Your task to perform on an android device: remove spam from my inbox in the gmail app Image 0: 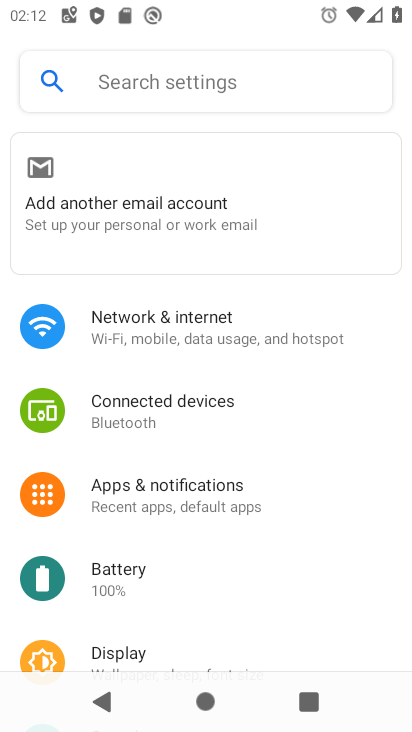
Step 0: press home button
Your task to perform on an android device: remove spam from my inbox in the gmail app Image 1: 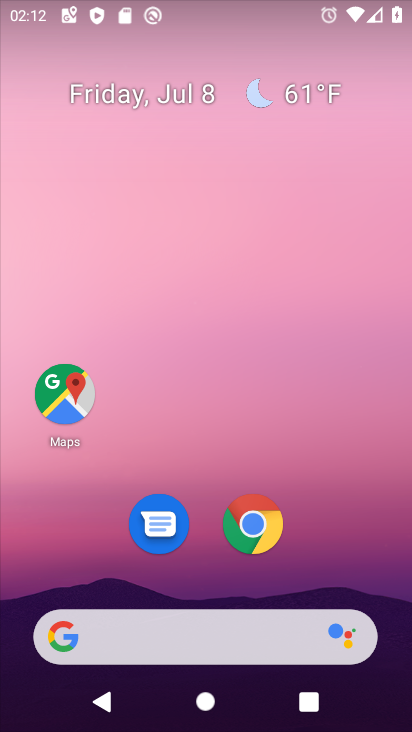
Step 1: drag from (304, 560) to (292, 36)
Your task to perform on an android device: remove spam from my inbox in the gmail app Image 2: 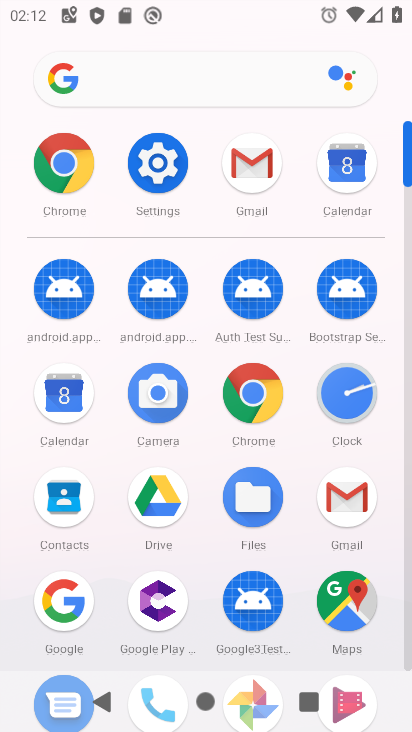
Step 2: click (254, 167)
Your task to perform on an android device: remove spam from my inbox in the gmail app Image 3: 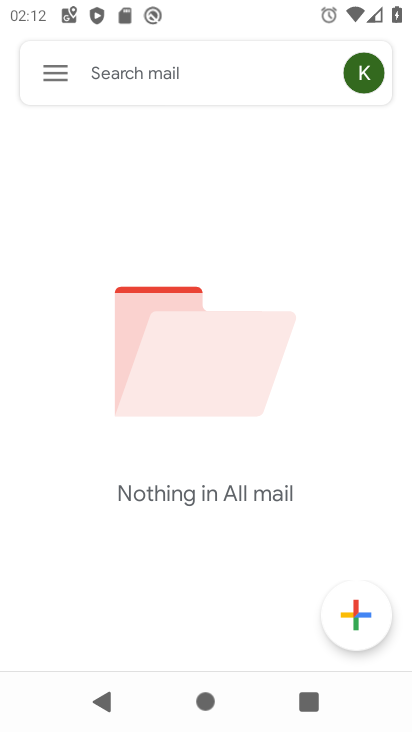
Step 3: click (53, 70)
Your task to perform on an android device: remove spam from my inbox in the gmail app Image 4: 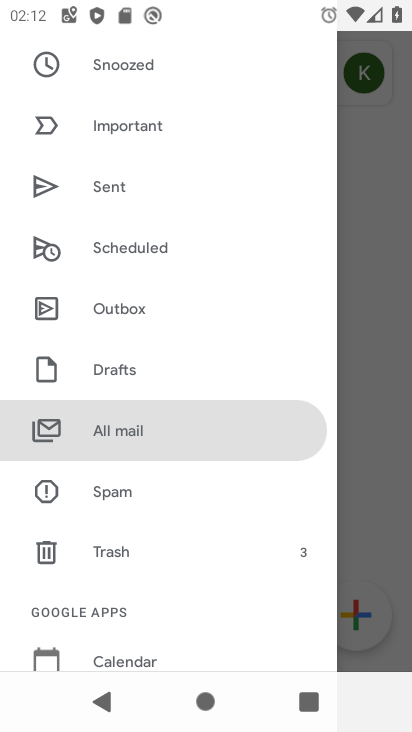
Step 4: click (115, 482)
Your task to perform on an android device: remove spam from my inbox in the gmail app Image 5: 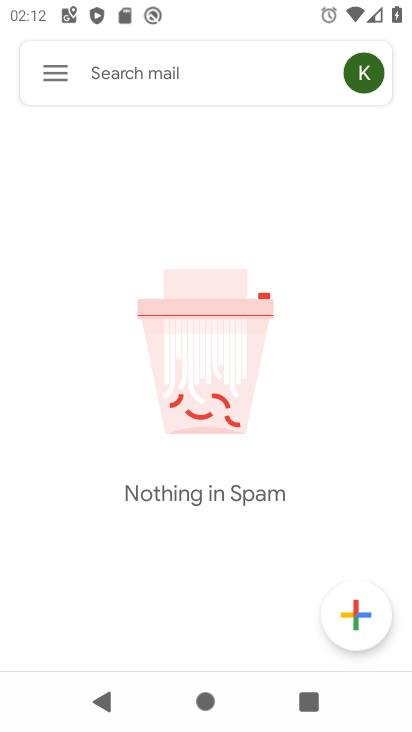
Step 5: task complete